Your task to perform on an android device: Open Android settings Image 0: 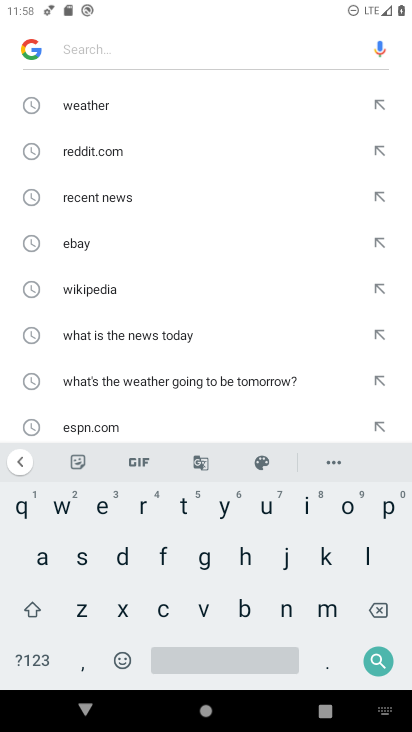
Step 0: press home button
Your task to perform on an android device: Open Android settings Image 1: 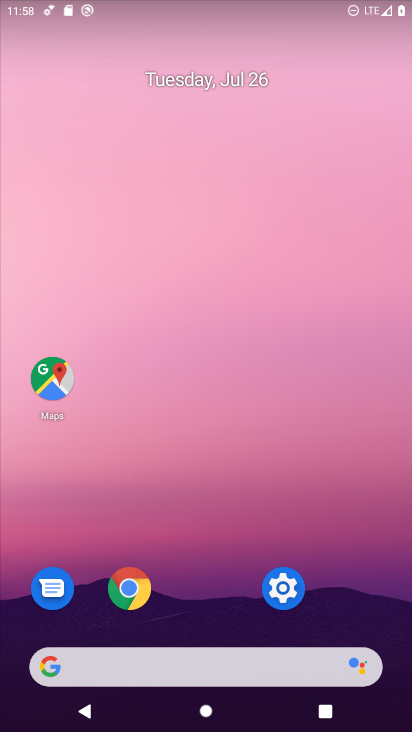
Step 1: click (291, 595)
Your task to perform on an android device: Open Android settings Image 2: 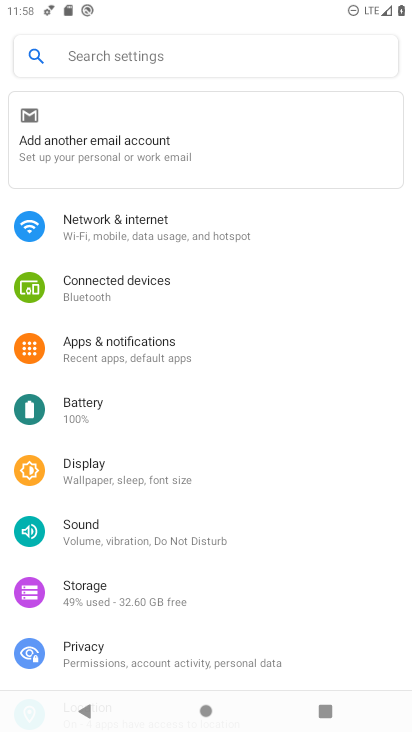
Step 2: click (153, 63)
Your task to perform on an android device: Open Android settings Image 3: 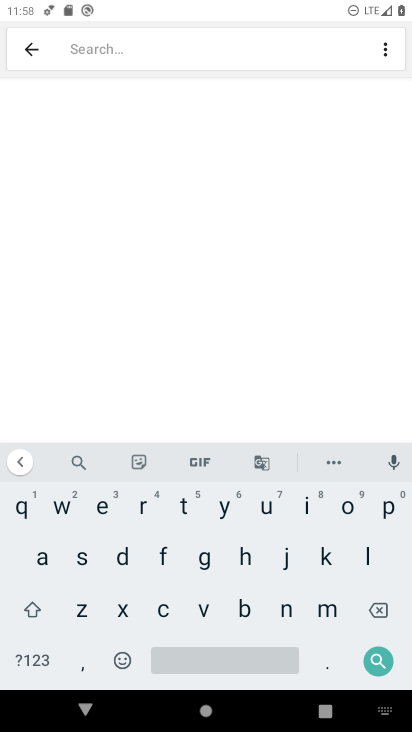
Step 3: click (36, 561)
Your task to perform on an android device: Open Android settings Image 4: 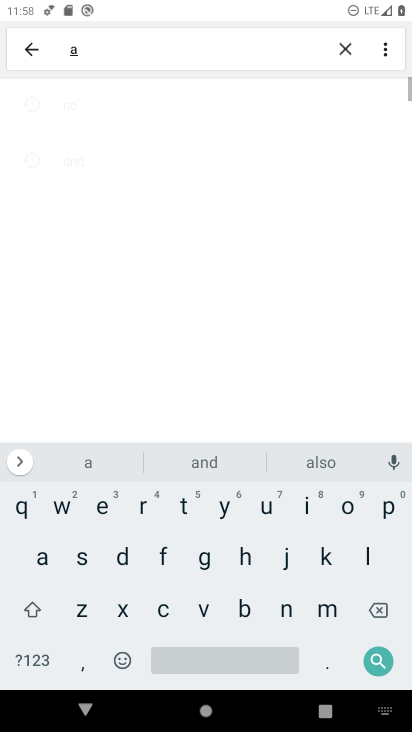
Step 4: click (288, 607)
Your task to perform on an android device: Open Android settings Image 5: 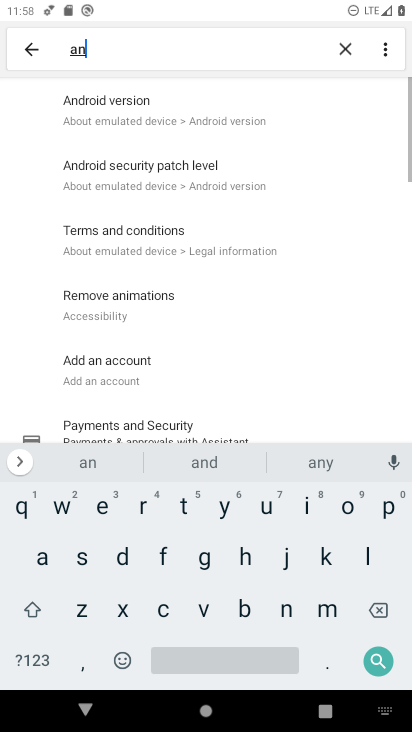
Step 5: click (125, 105)
Your task to perform on an android device: Open Android settings Image 6: 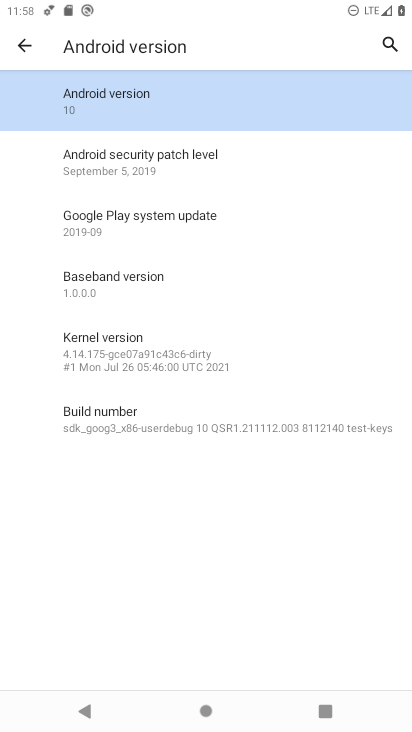
Step 6: click (276, 98)
Your task to perform on an android device: Open Android settings Image 7: 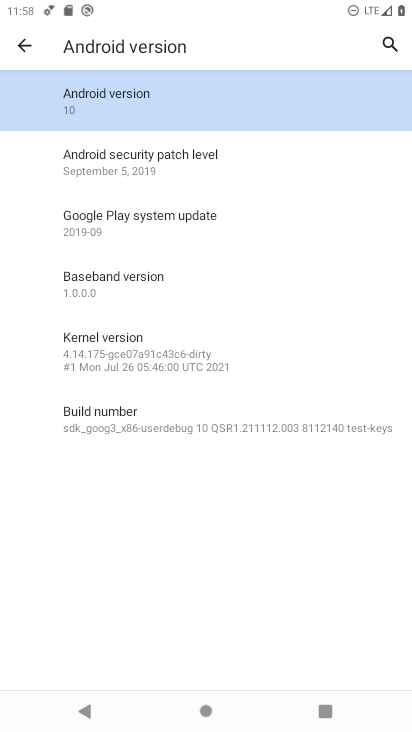
Step 7: task complete